Your task to perform on an android device: check android version Image 0: 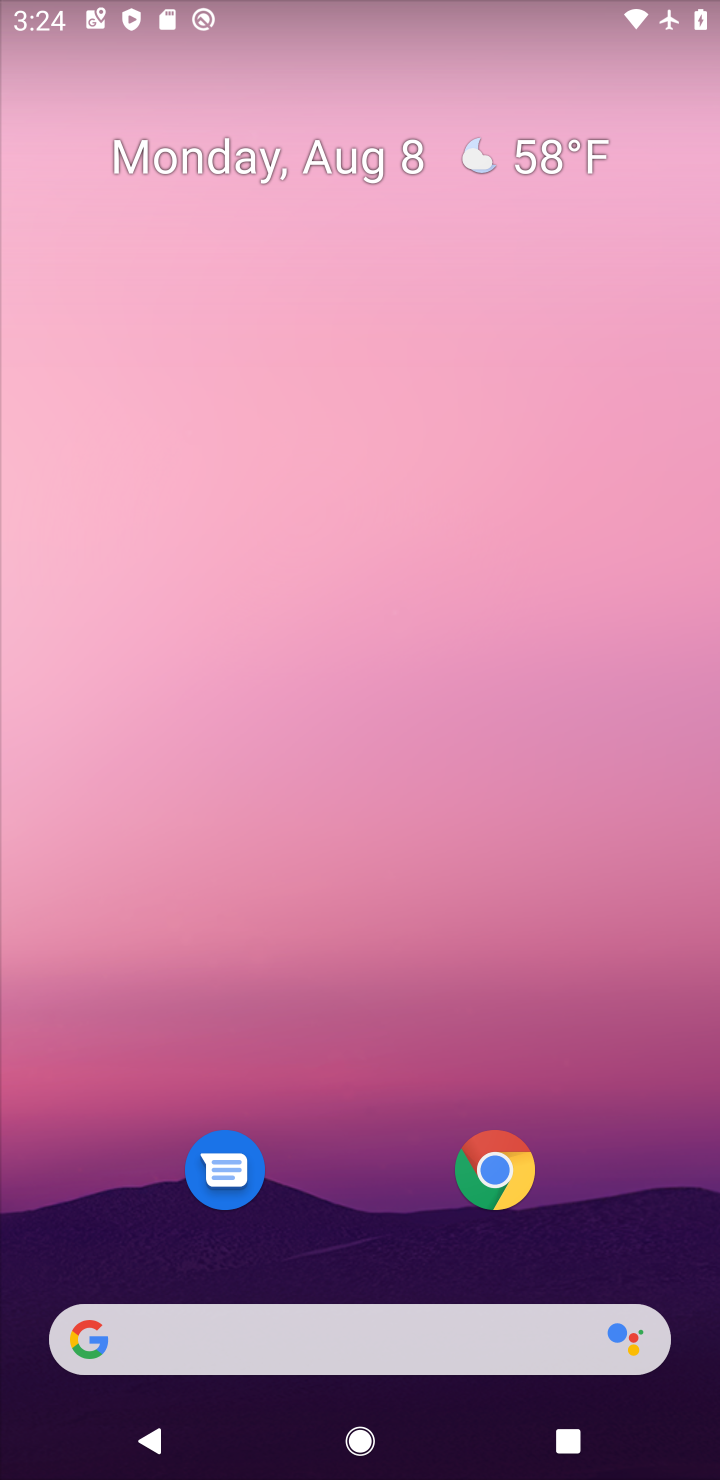
Step 0: drag from (349, 1158) to (412, 527)
Your task to perform on an android device: check android version Image 1: 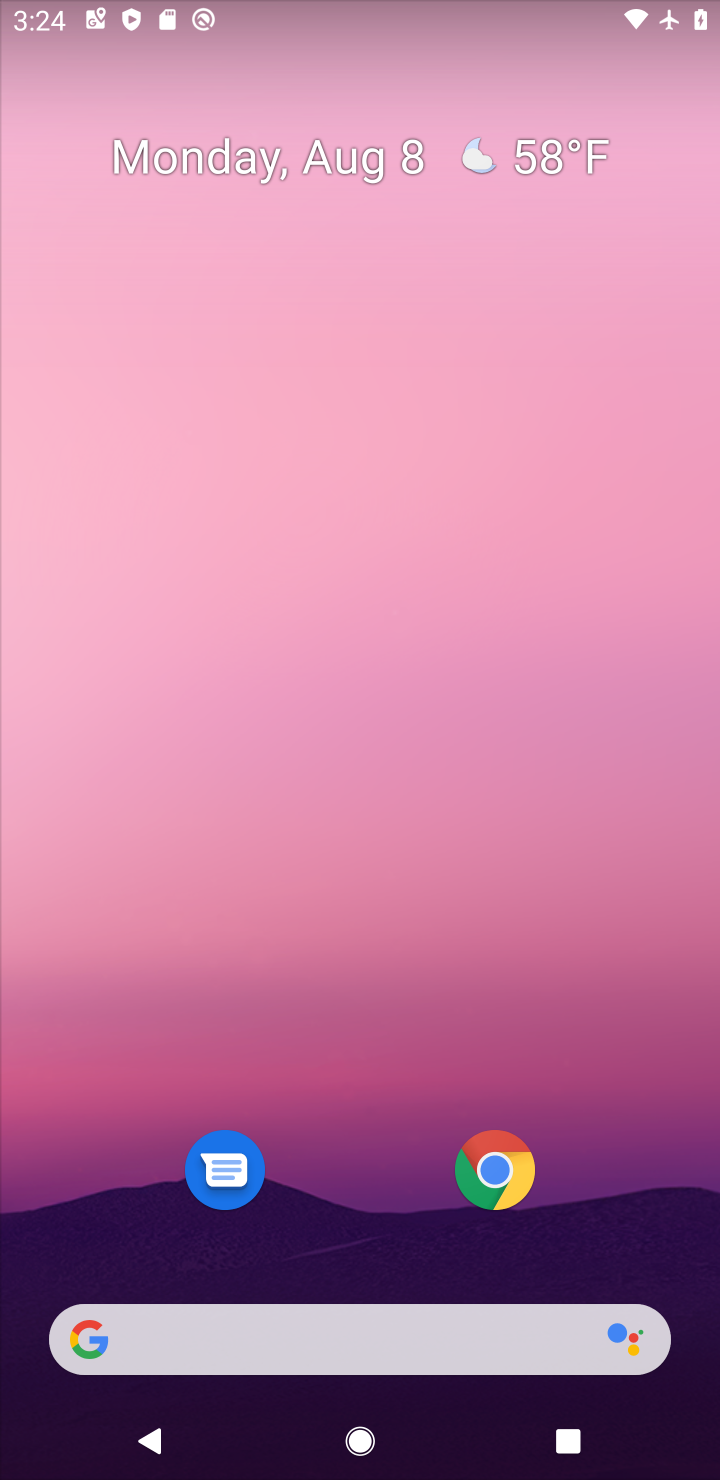
Step 1: drag from (361, 1164) to (356, 512)
Your task to perform on an android device: check android version Image 2: 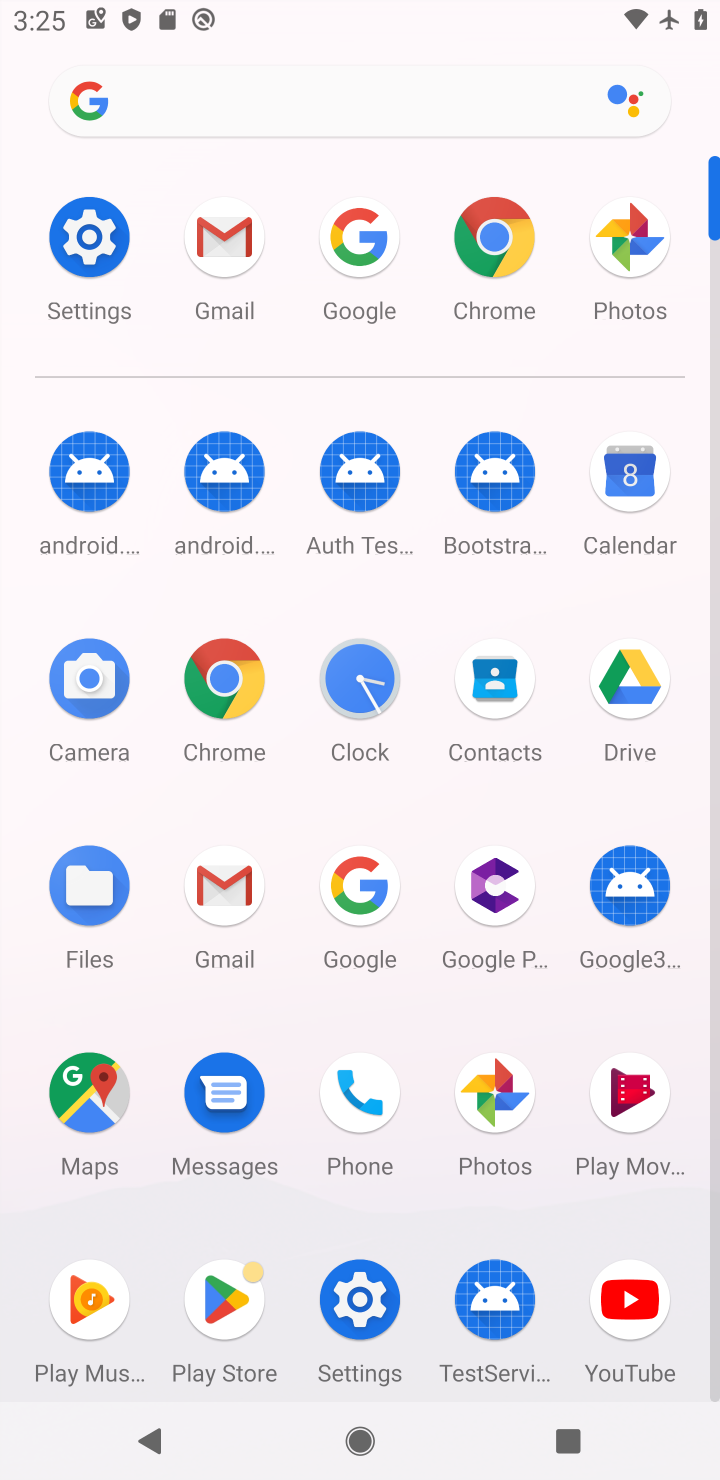
Step 2: click (78, 244)
Your task to perform on an android device: check android version Image 3: 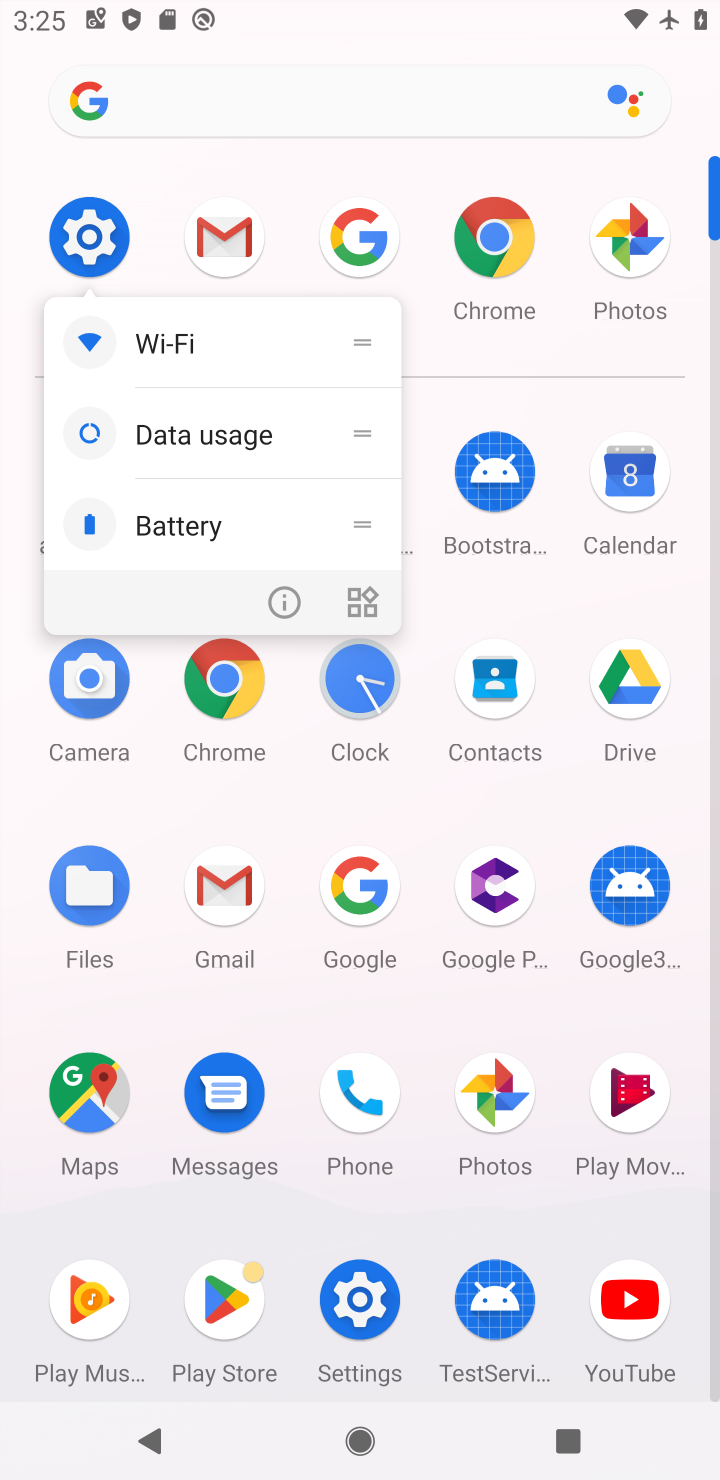
Step 3: click (78, 244)
Your task to perform on an android device: check android version Image 4: 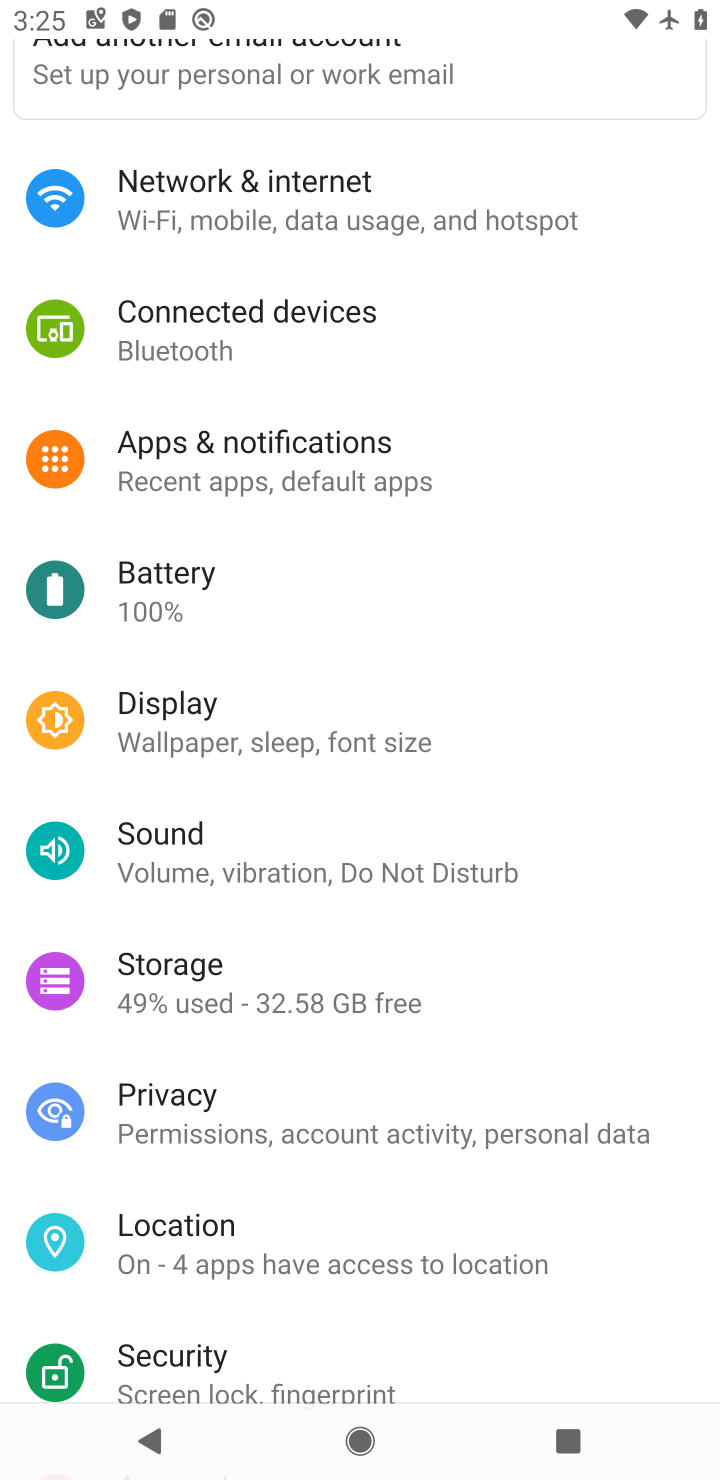
Step 4: drag from (360, 1320) to (386, 568)
Your task to perform on an android device: check android version Image 5: 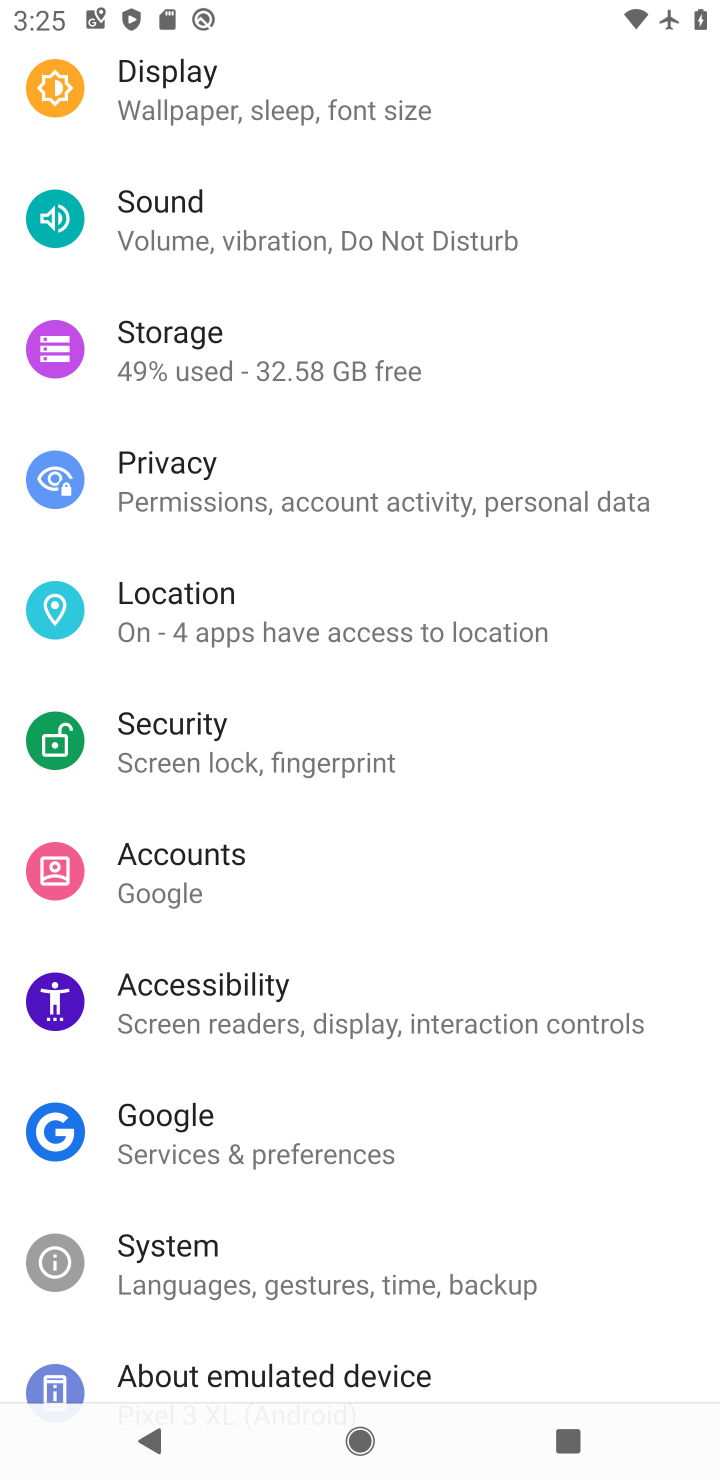
Step 5: drag from (386, 1161) to (467, 586)
Your task to perform on an android device: check android version Image 6: 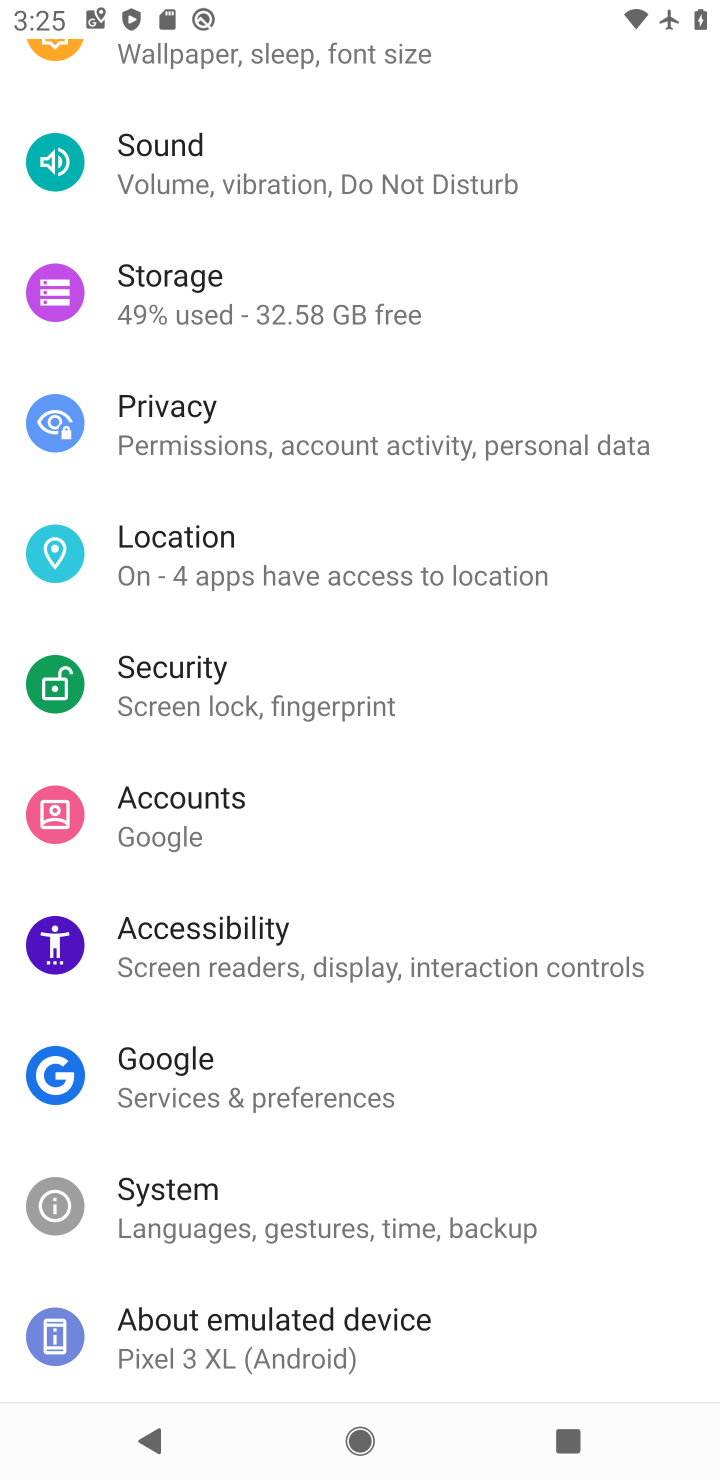
Step 6: click (255, 1351)
Your task to perform on an android device: check android version Image 7: 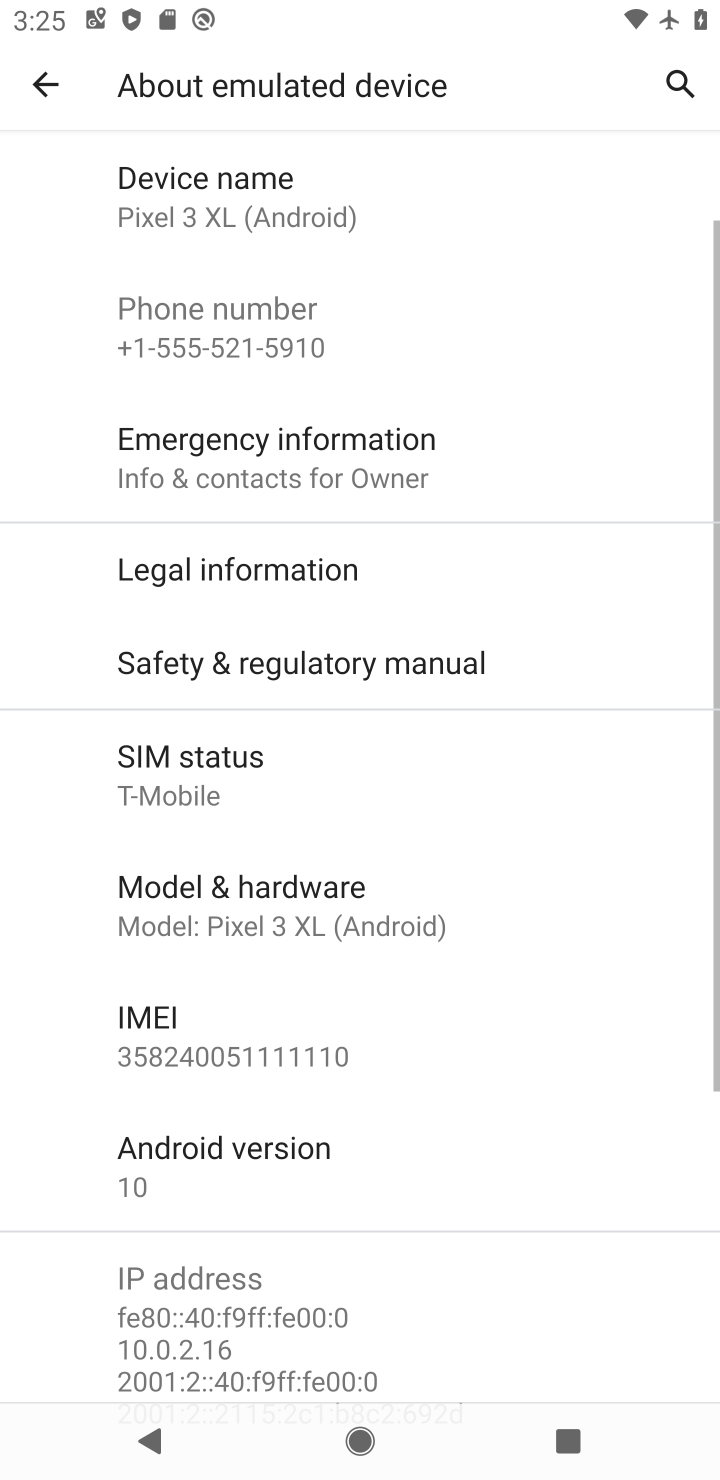
Step 7: click (297, 1143)
Your task to perform on an android device: check android version Image 8: 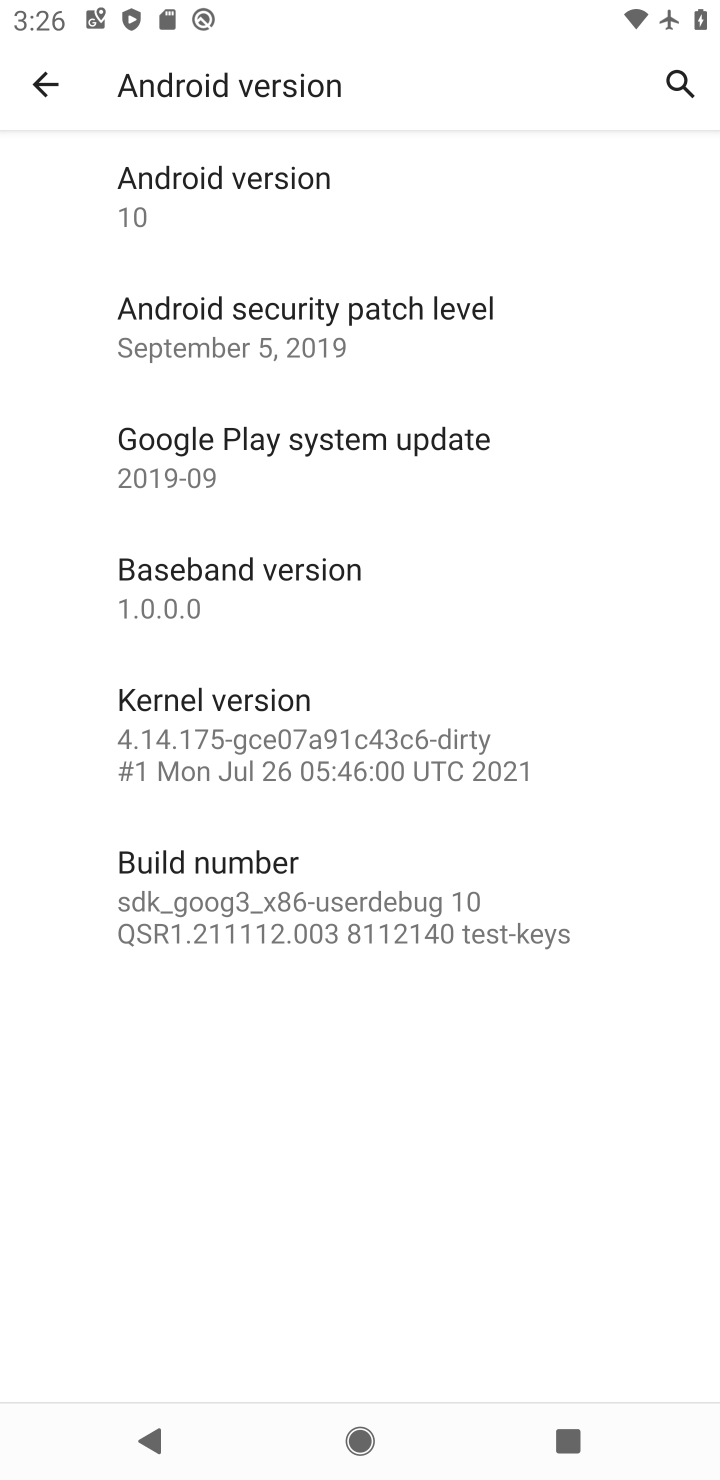
Step 8: task complete